Your task to perform on an android device: Go to internet settings Image 0: 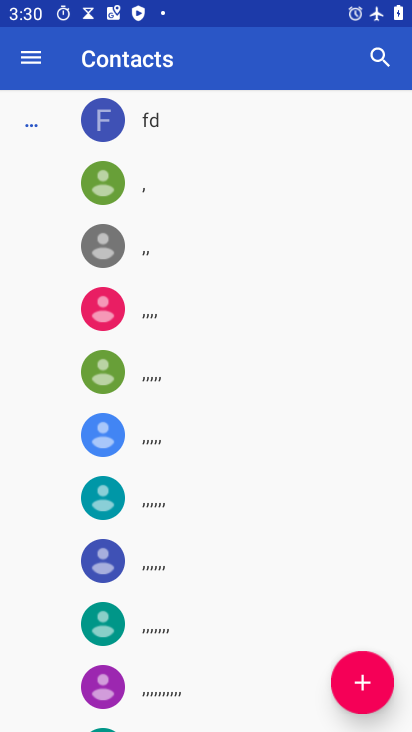
Step 0: press back button
Your task to perform on an android device: Go to internet settings Image 1: 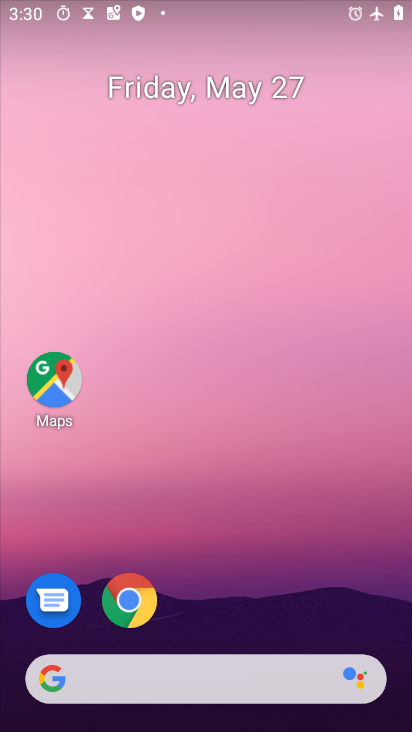
Step 1: drag from (203, 582) to (268, 41)
Your task to perform on an android device: Go to internet settings Image 2: 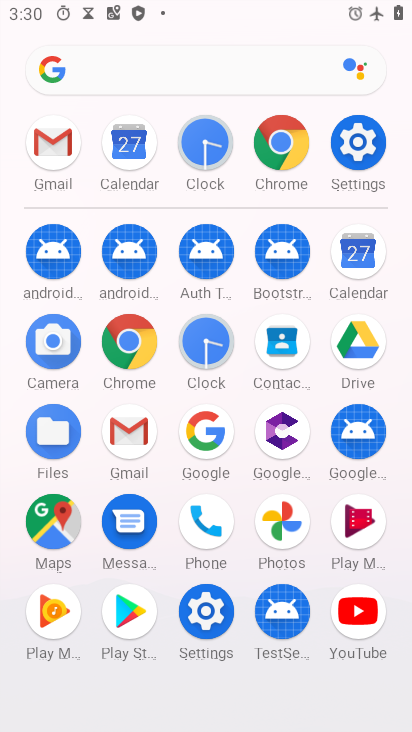
Step 2: drag from (20, 512) to (22, 249)
Your task to perform on an android device: Go to internet settings Image 3: 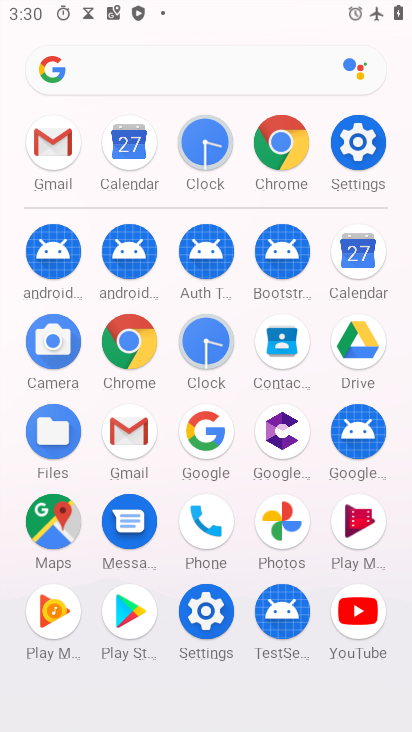
Step 3: click (205, 609)
Your task to perform on an android device: Go to internet settings Image 4: 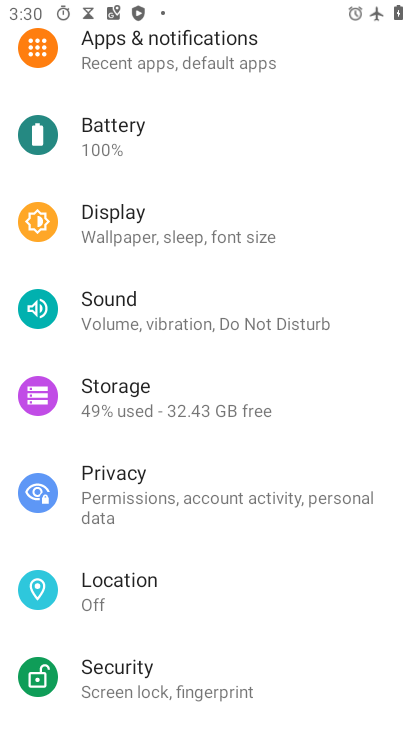
Step 4: drag from (296, 175) to (236, 612)
Your task to perform on an android device: Go to internet settings Image 5: 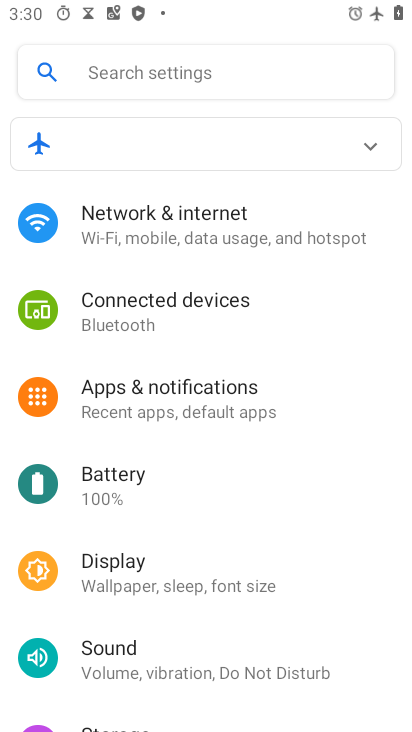
Step 5: click (220, 225)
Your task to perform on an android device: Go to internet settings Image 6: 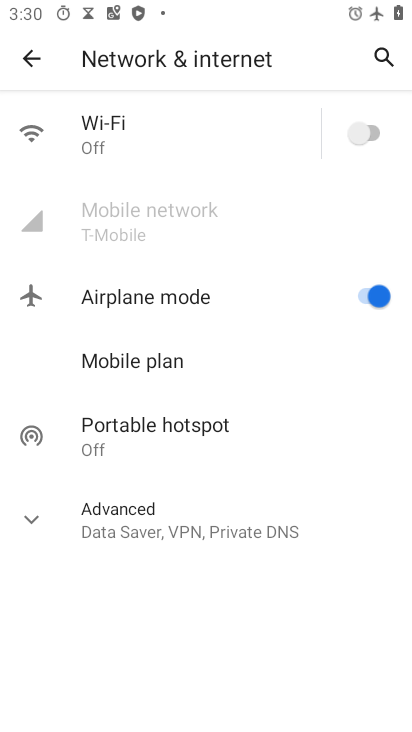
Step 6: click (47, 516)
Your task to perform on an android device: Go to internet settings Image 7: 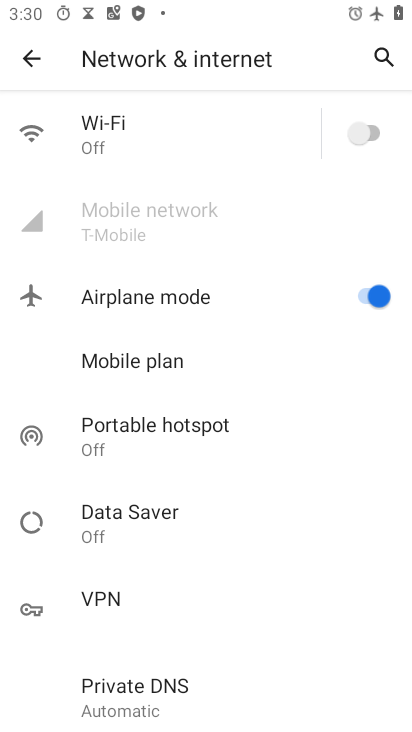
Step 7: click (137, 126)
Your task to perform on an android device: Go to internet settings Image 8: 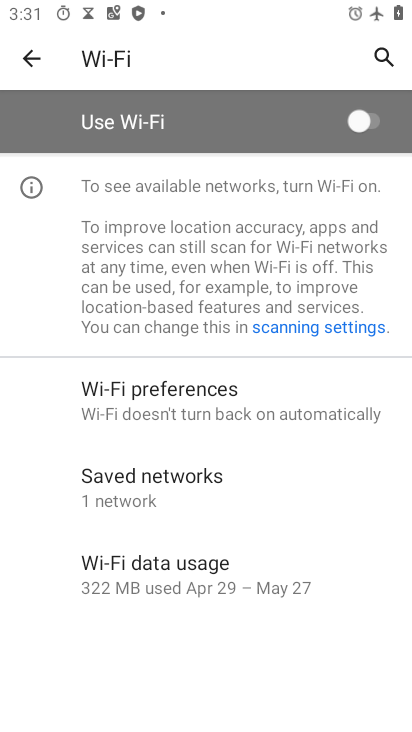
Step 8: task complete